Your task to perform on an android device: What's the weather going to be this weekend? Image 0: 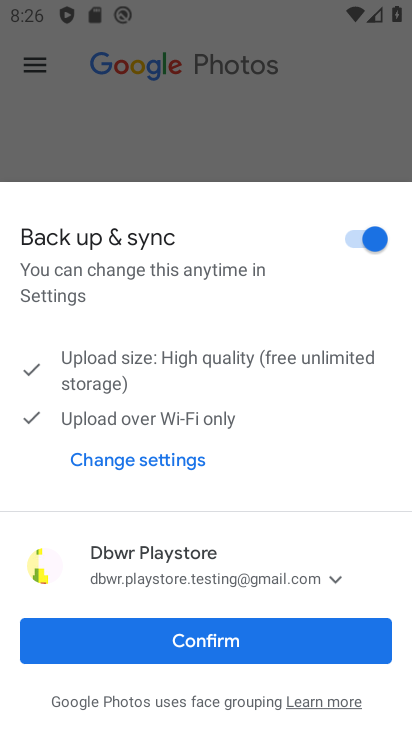
Step 0: press home button
Your task to perform on an android device: What's the weather going to be this weekend? Image 1: 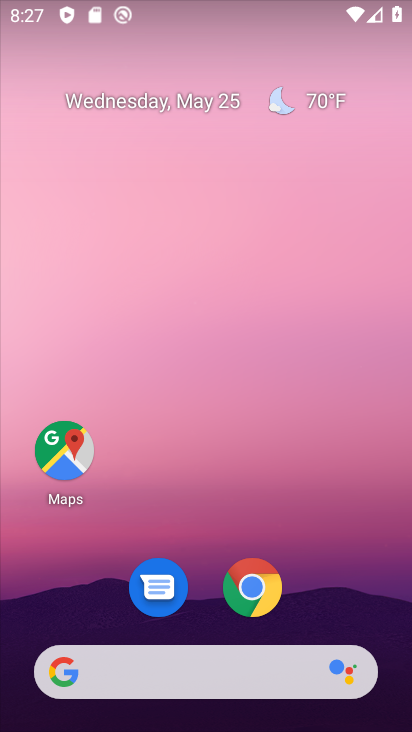
Step 1: click (326, 105)
Your task to perform on an android device: What's the weather going to be this weekend? Image 2: 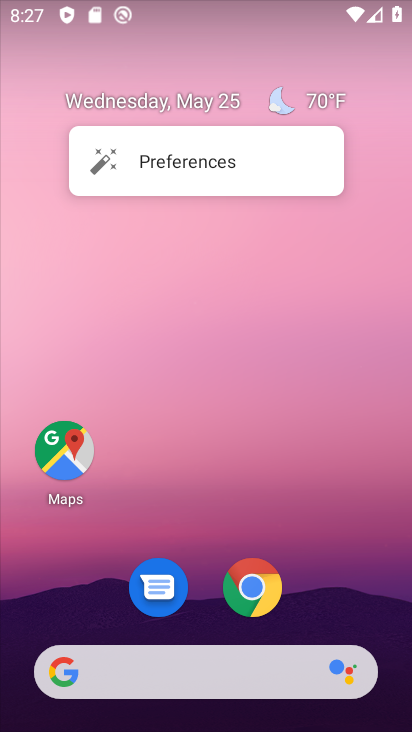
Step 2: click (198, 388)
Your task to perform on an android device: What's the weather going to be this weekend? Image 3: 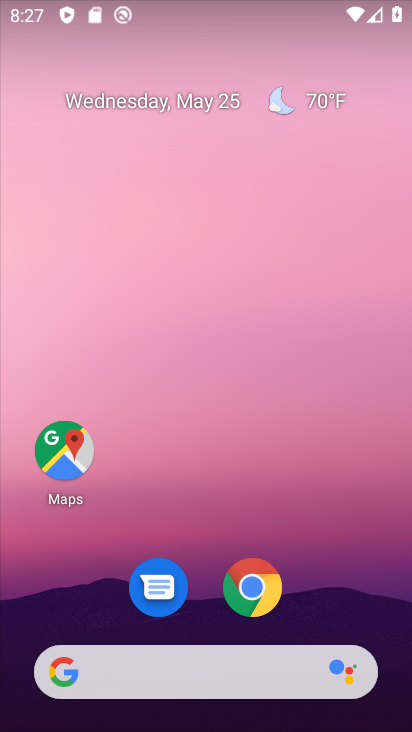
Step 3: click (300, 97)
Your task to perform on an android device: What's the weather going to be this weekend? Image 4: 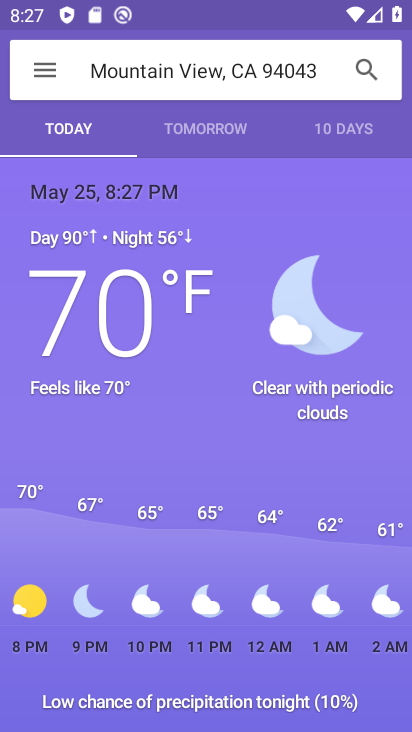
Step 4: click (329, 130)
Your task to perform on an android device: What's the weather going to be this weekend? Image 5: 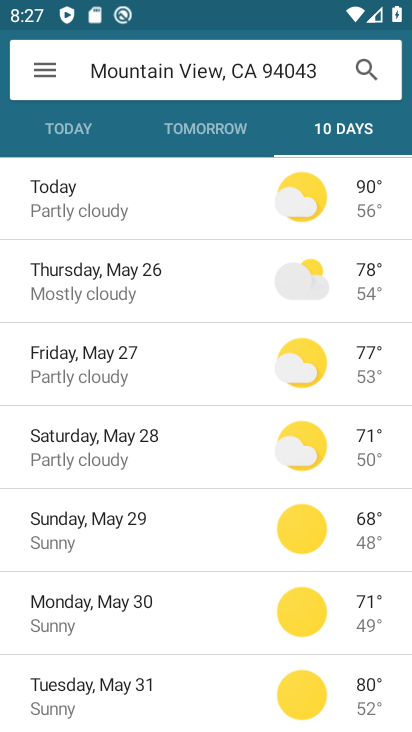
Step 5: task complete